Your task to perform on an android device: Show the shopping cart on walmart.com. Image 0: 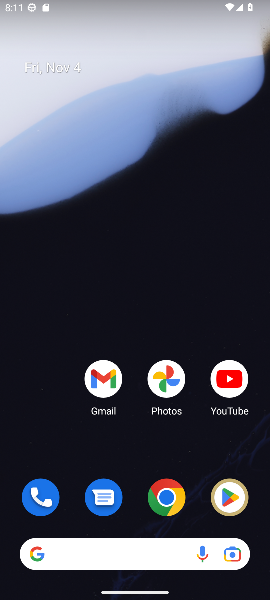
Step 0: click (168, 501)
Your task to perform on an android device: Show the shopping cart on walmart.com. Image 1: 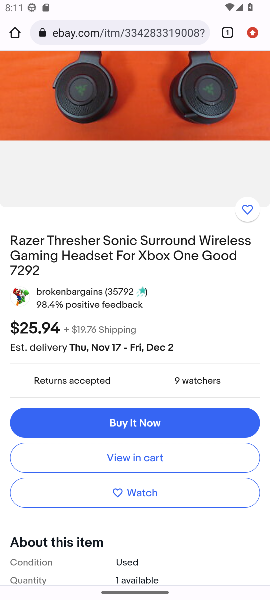
Step 1: click (109, 34)
Your task to perform on an android device: Show the shopping cart on walmart.com. Image 2: 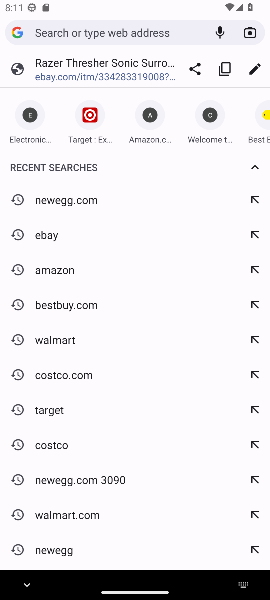
Step 2: click (53, 517)
Your task to perform on an android device: Show the shopping cart on walmart.com. Image 3: 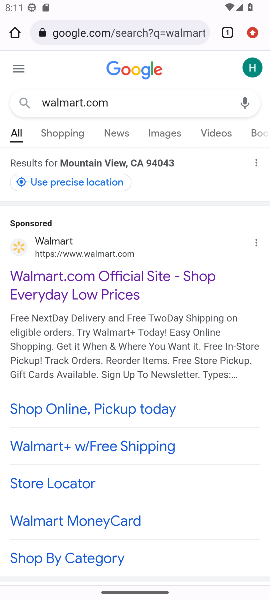
Step 3: drag from (75, 467) to (105, 223)
Your task to perform on an android device: Show the shopping cart on walmart.com. Image 4: 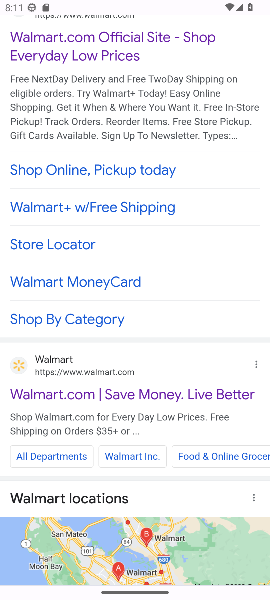
Step 4: click (59, 374)
Your task to perform on an android device: Show the shopping cart on walmart.com. Image 5: 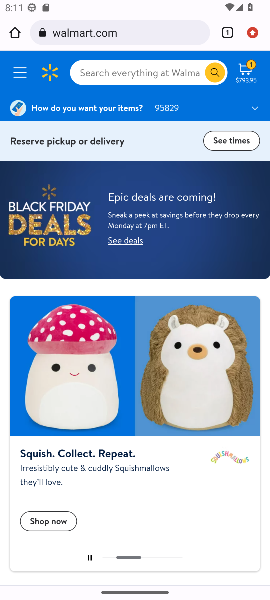
Step 5: click (247, 74)
Your task to perform on an android device: Show the shopping cart on walmart.com. Image 6: 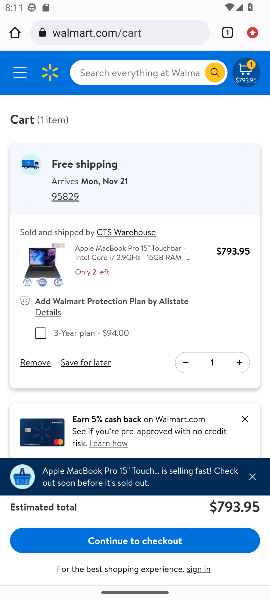
Step 6: task complete